Your task to perform on an android device: change the clock style Image 0: 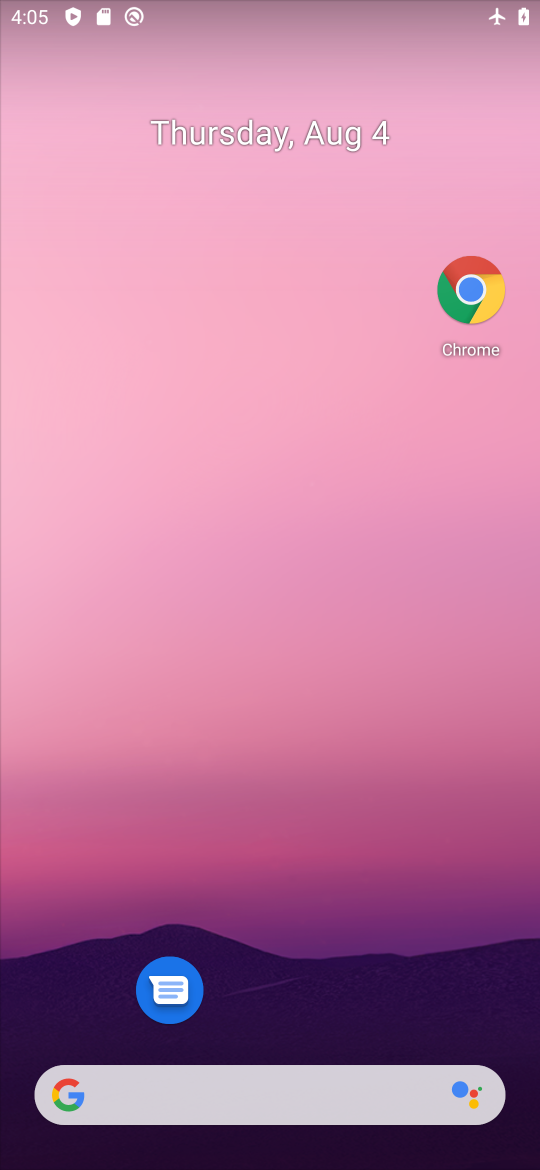
Step 0: drag from (321, 812) to (191, 126)
Your task to perform on an android device: change the clock style Image 1: 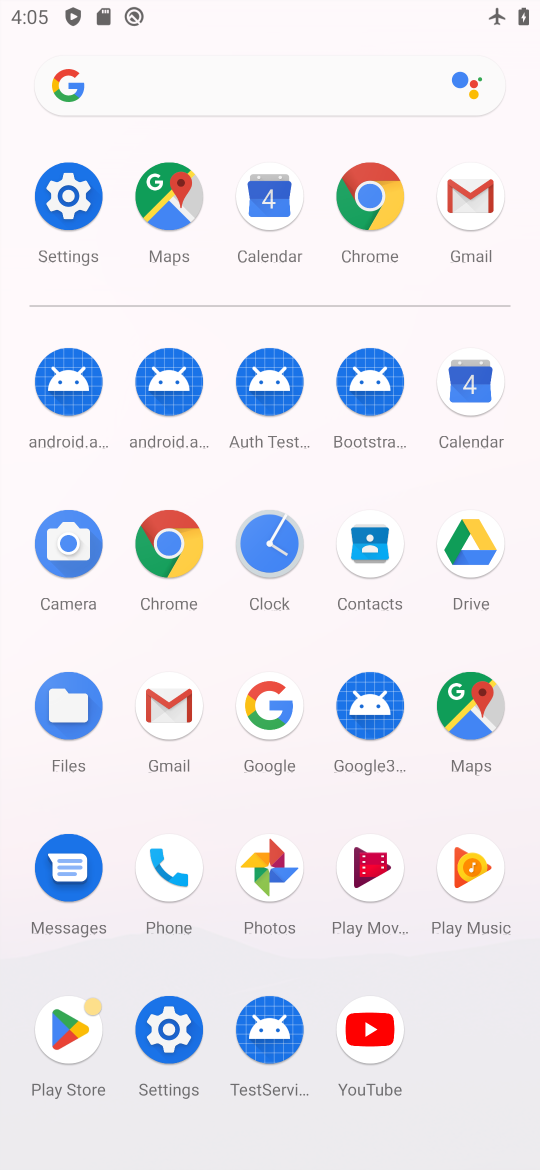
Step 1: click (265, 544)
Your task to perform on an android device: change the clock style Image 2: 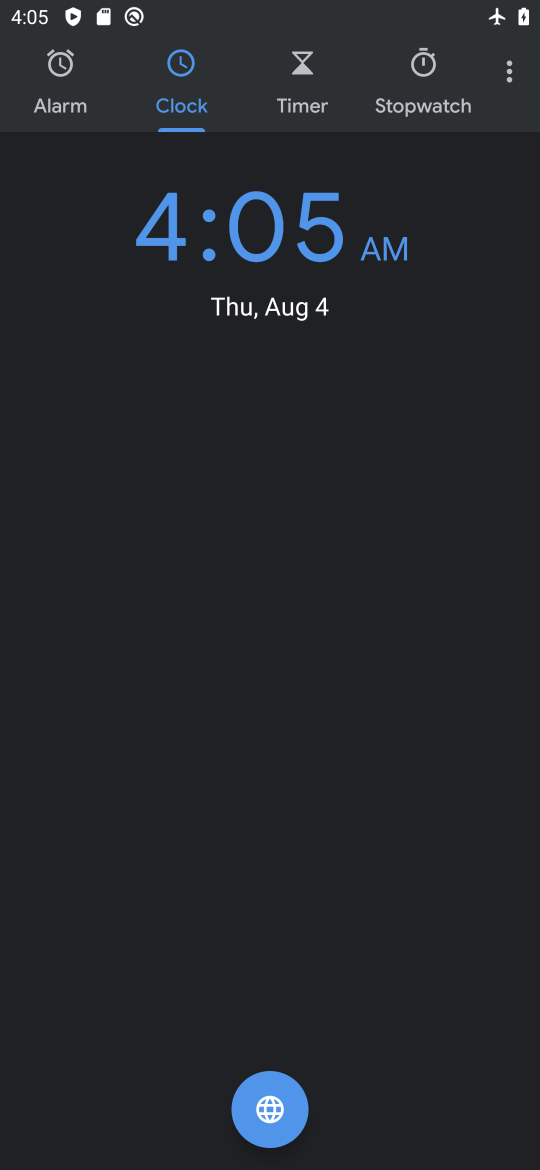
Step 2: click (510, 95)
Your task to perform on an android device: change the clock style Image 3: 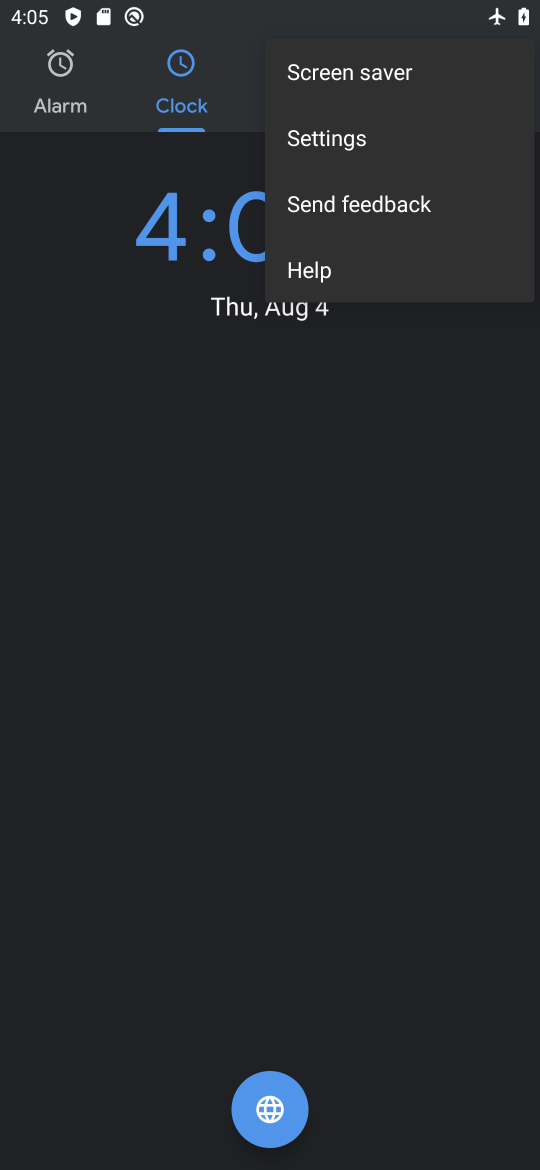
Step 3: click (450, 126)
Your task to perform on an android device: change the clock style Image 4: 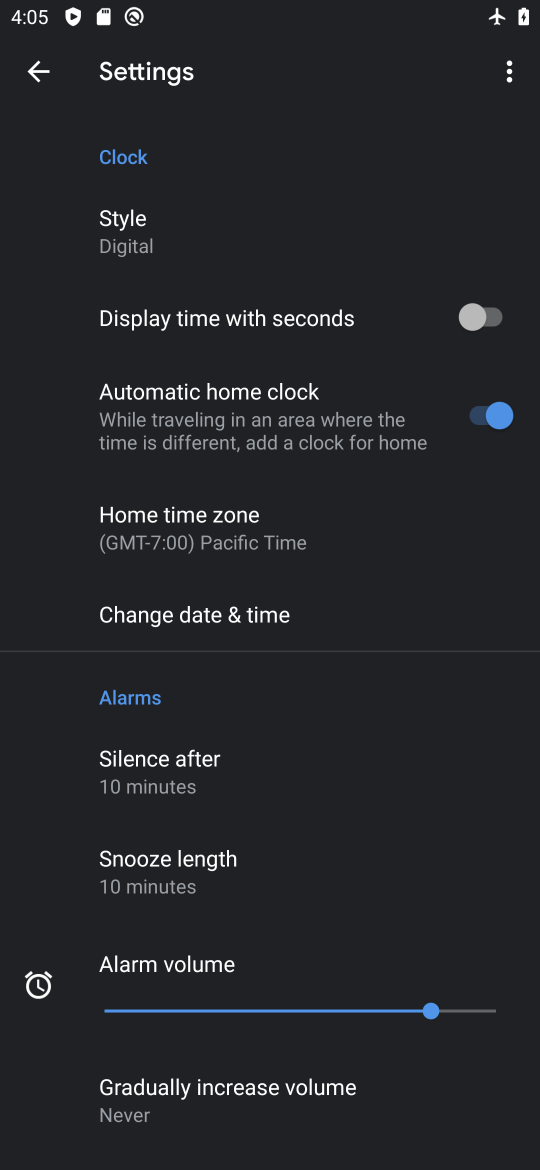
Step 4: click (191, 230)
Your task to perform on an android device: change the clock style Image 5: 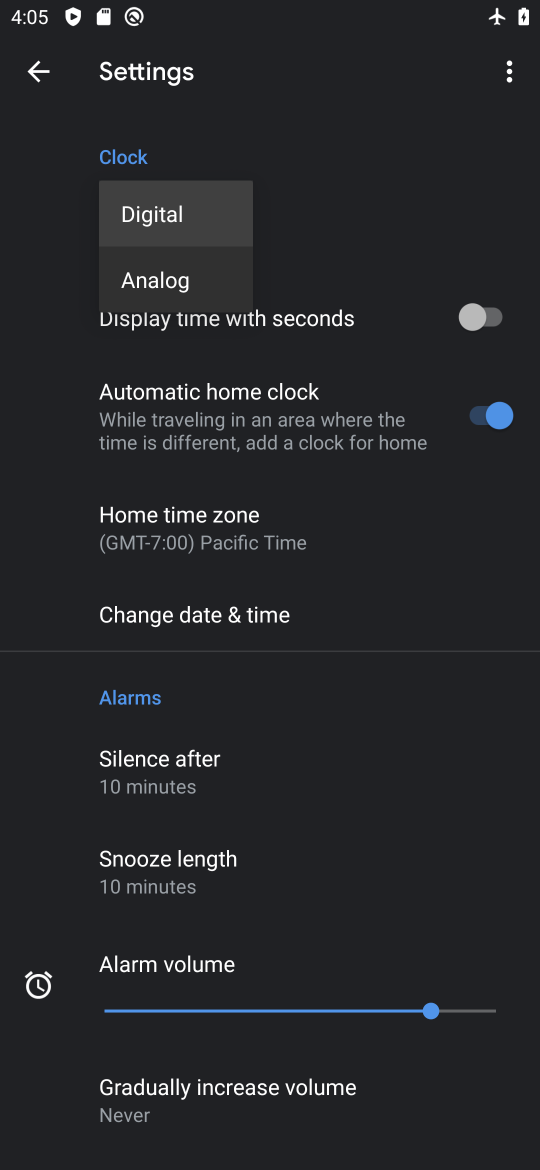
Step 5: click (206, 281)
Your task to perform on an android device: change the clock style Image 6: 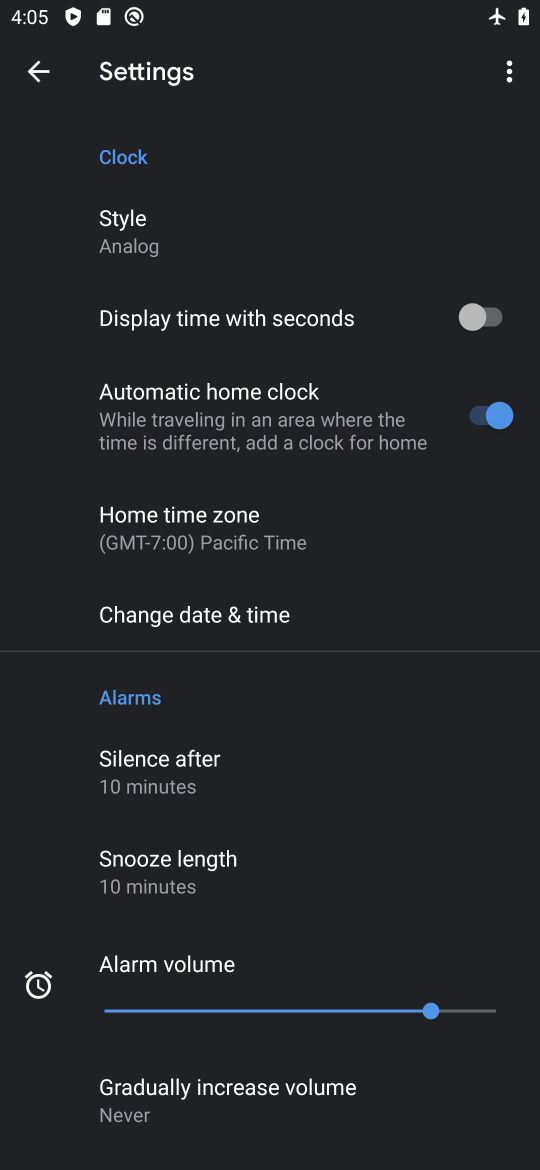
Step 6: task complete